Your task to perform on an android device: change the clock display to digital Image 0: 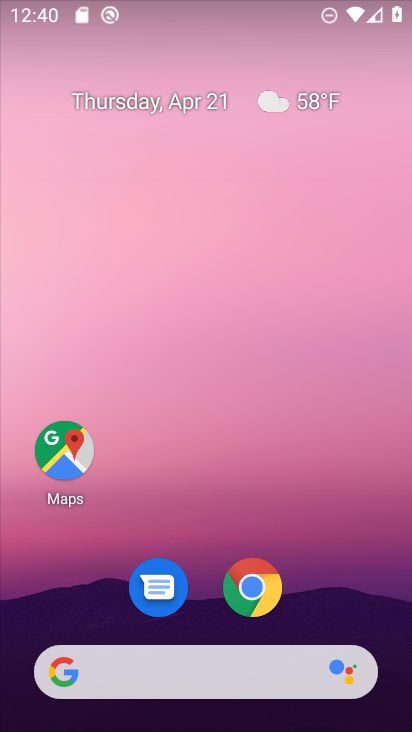
Step 0: click (278, 362)
Your task to perform on an android device: change the clock display to digital Image 1: 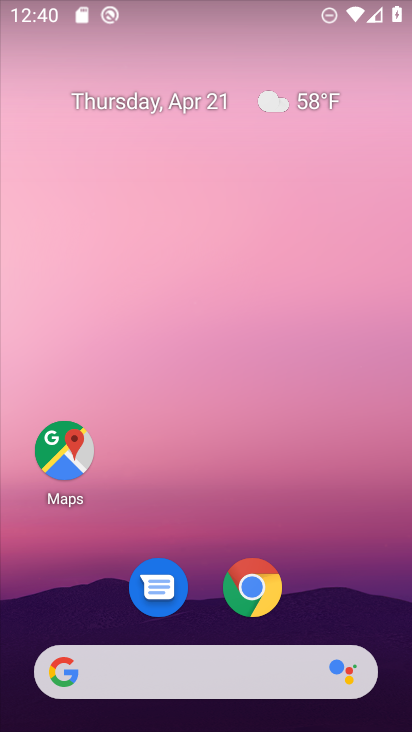
Step 1: drag from (207, 618) to (385, 15)
Your task to perform on an android device: change the clock display to digital Image 2: 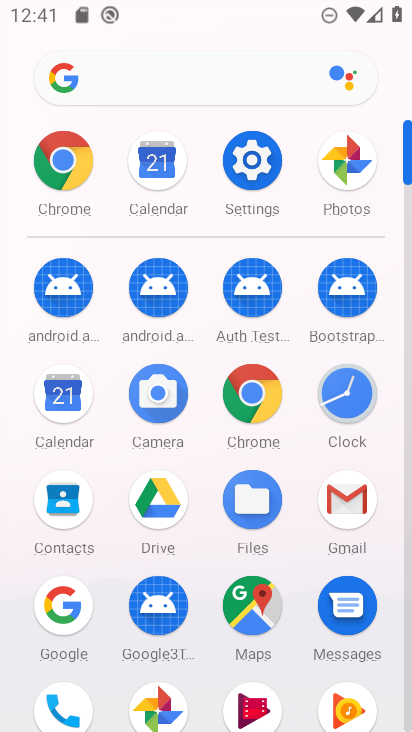
Step 2: click (350, 397)
Your task to perform on an android device: change the clock display to digital Image 3: 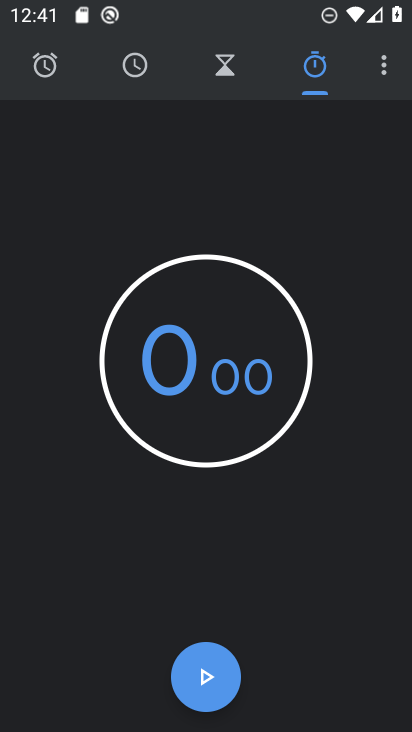
Step 3: click (390, 69)
Your task to perform on an android device: change the clock display to digital Image 4: 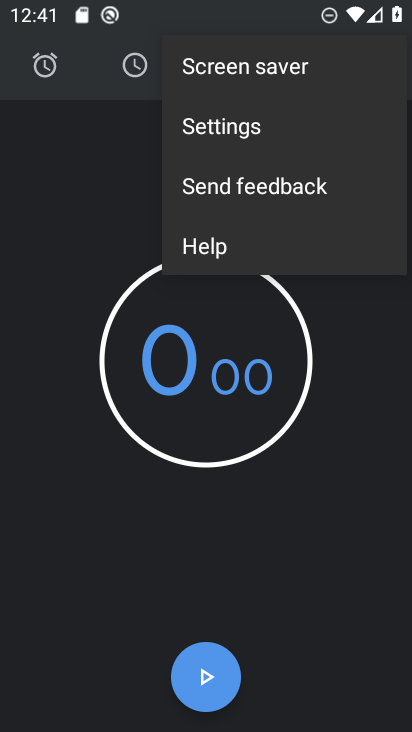
Step 4: click (239, 132)
Your task to perform on an android device: change the clock display to digital Image 5: 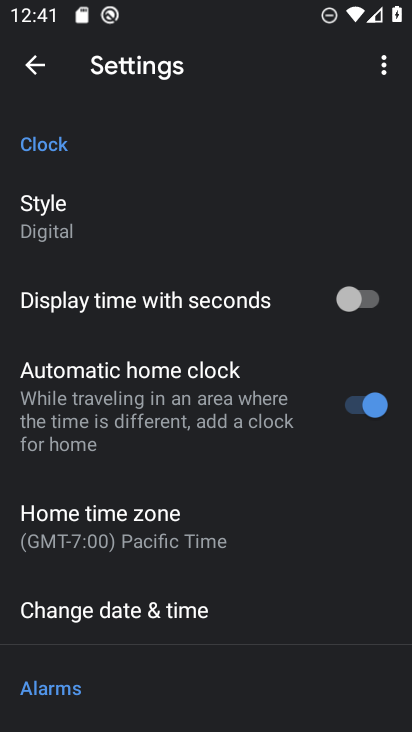
Step 5: task complete